Your task to perform on an android device: change the clock display to analog Image 0: 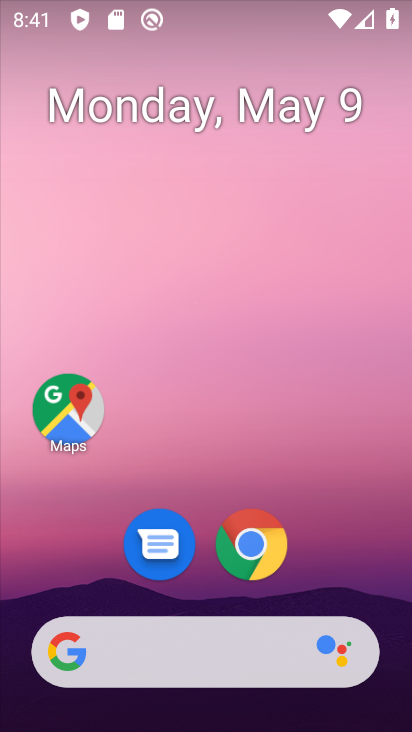
Step 0: drag from (331, 554) to (290, 20)
Your task to perform on an android device: change the clock display to analog Image 1: 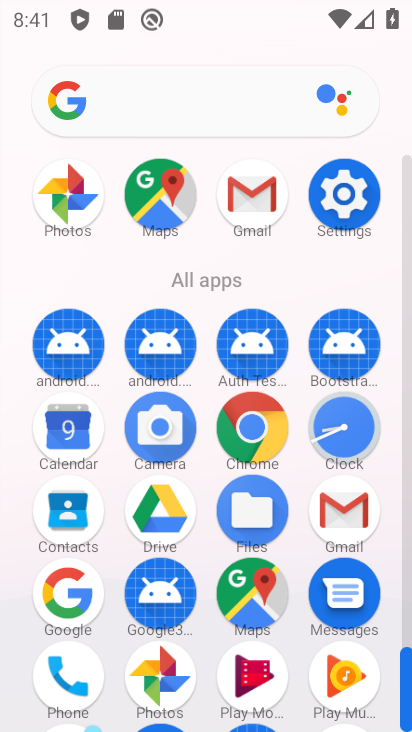
Step 1: click (344, 427)
Your task to perform on an android device: change the clock display to analog Image 2: 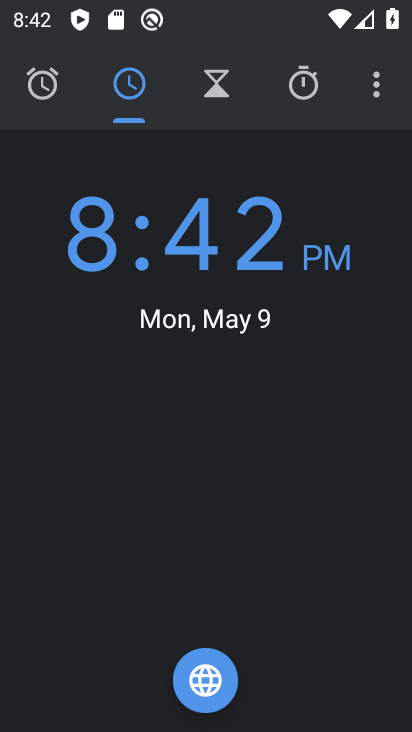
Step 2: click (374, 82)
Your task to perform on an android device: change the clock display to analog Image 3: 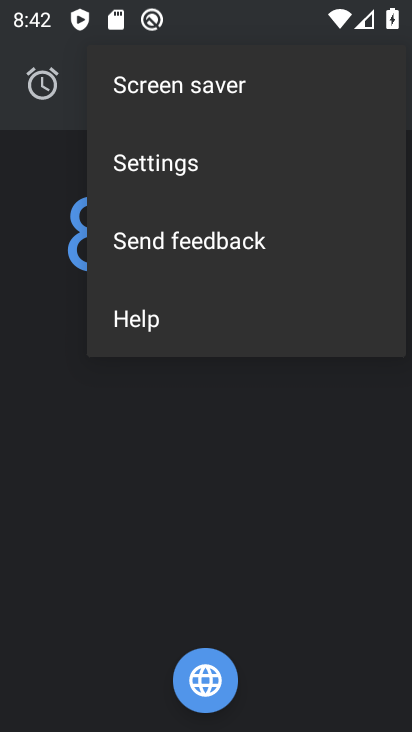
Step 3: click (171, 158)
Your task to perform on an android device: change the clock display to analog Image 4: 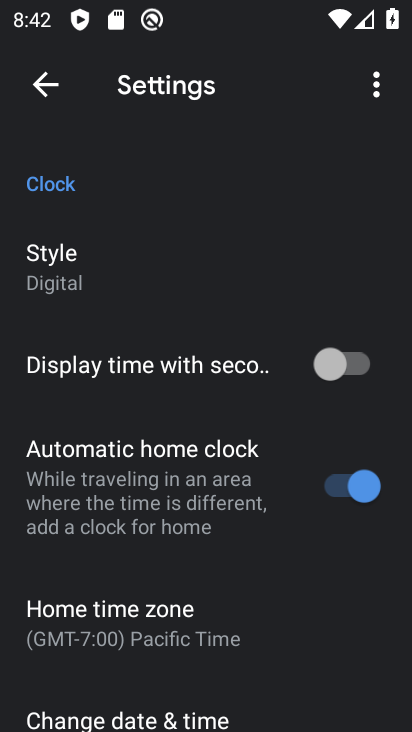
Step 4: click (52, 265)
Your task to perform on an android device: change the clock display to analog Image 5: 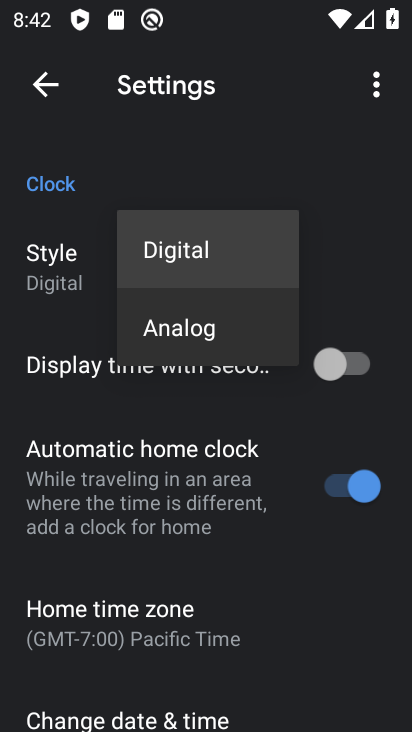
Step 5: click (162, 322)
Your task to perform on an android device: change the clock display to analog Image 6: 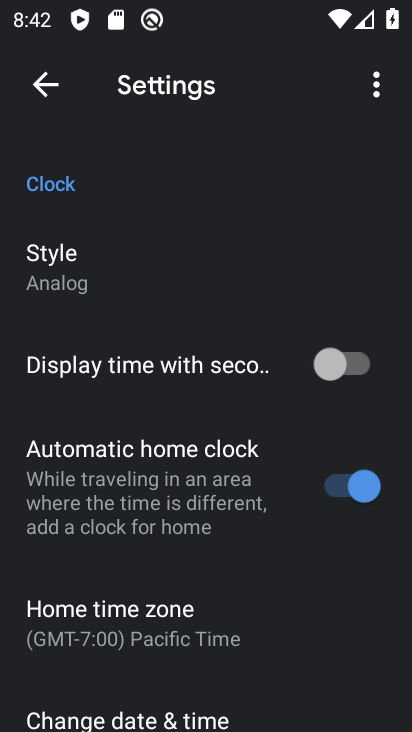
Step 6: task complete